Your task to perform on an android device: turn smart compose on in the gmail app Image 0: 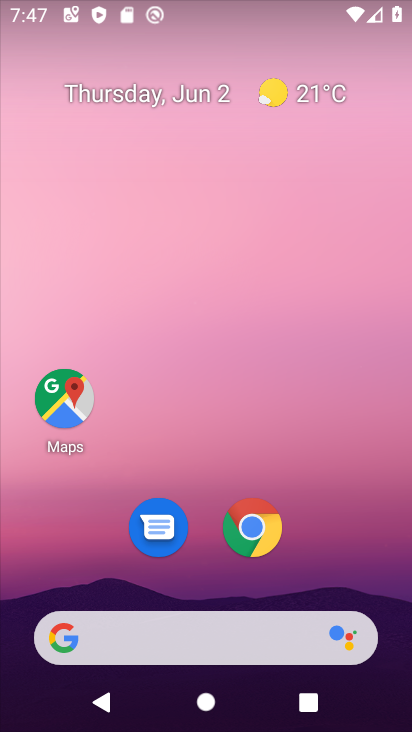
Step 0: drag from (345, 600) to (327, 105)
Your task to perform on an android device: turn smart compose on in the gmail app Image 1: 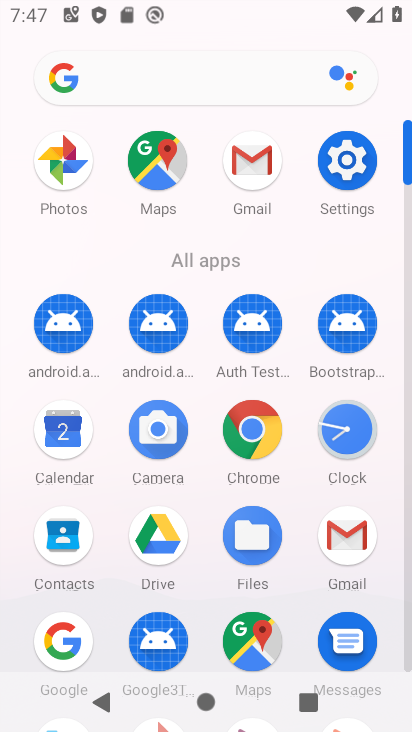
Step 1: click (250, 162)
Your task to perform on an android device: turn smart compose on in the gmail app Image 2: 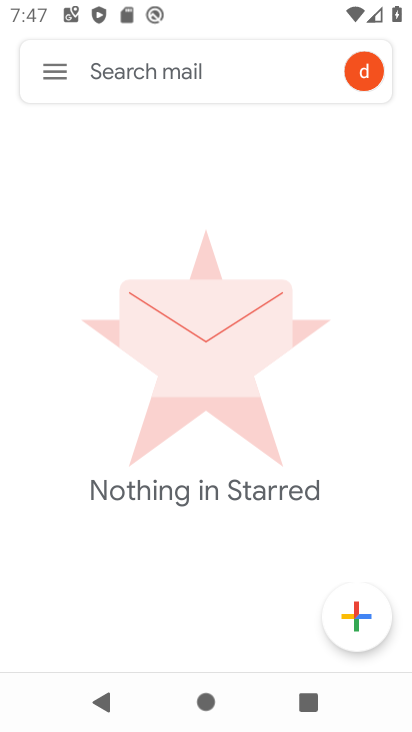
Step 2: click (42, 94)
Your task to perform on an android device: turn smart compose on in the gmail app Image 3: 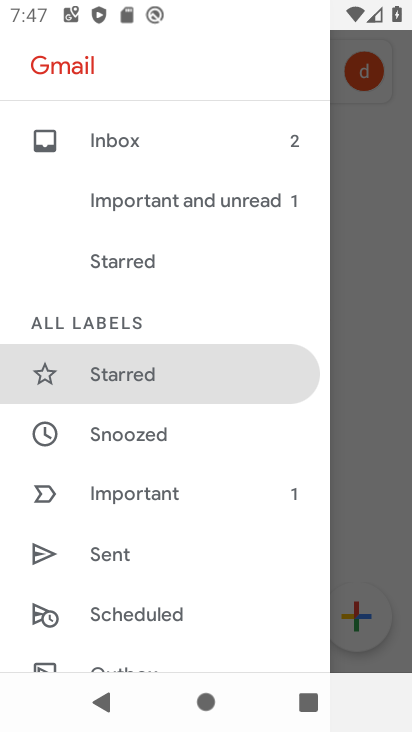
Step 3: drag from (198, 667) to (190, 292)
Your task to perform on an android device: turn smart compose on in the gmail app Image 4: 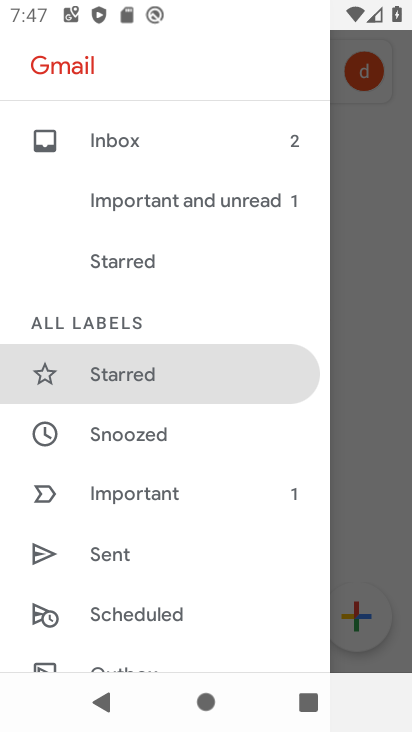
Step 4: drag from (200, 623) to (180, 364)
Your task to perform on an android device: turn smart compose on in the gmail app Image 5: 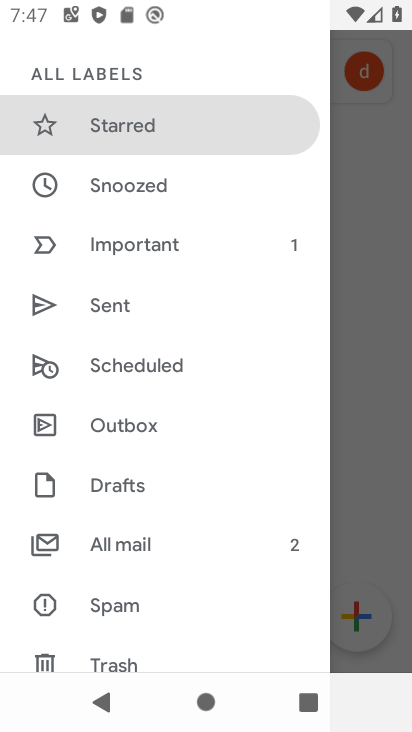
Step 5: drag from (149, 654) to (117, 439)
Your task to perform on an android device: turn smart compose on in the gmail app Image 6: 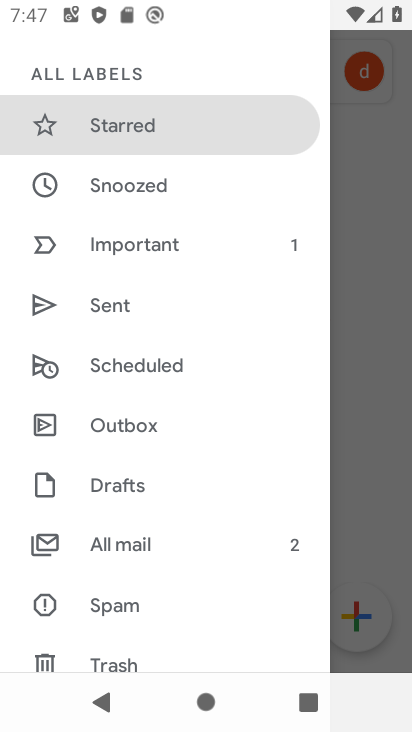
Step 6: drag from (121, 609) to (139, 383)
Your task to perform on an android device: turn smart compose on in the gmail app Image 7: 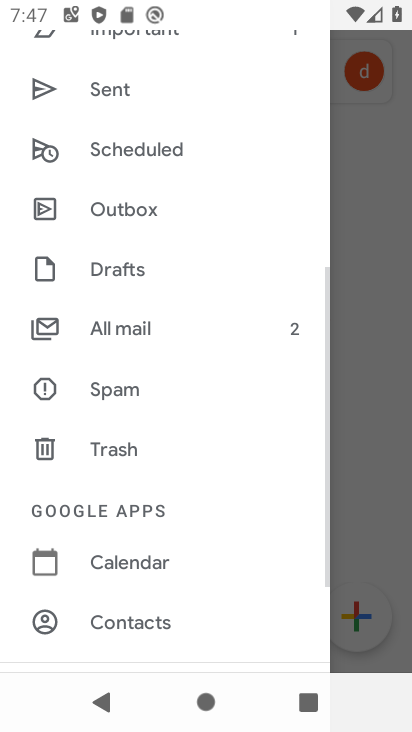
Step 7: drag from (79, 690) to (74, 487)
Your task to perform on an android device: turn smart compose on in the gmail app Image 8: 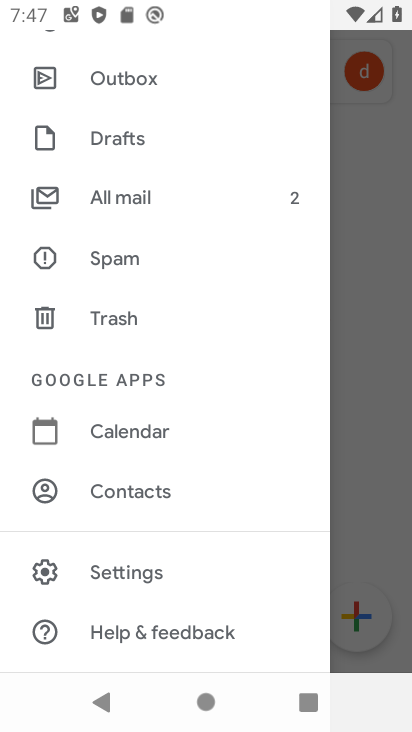
Step 8: click (201, 570)
Your task to perform on an android device: turn smart compose on in the gmail app Image 9: 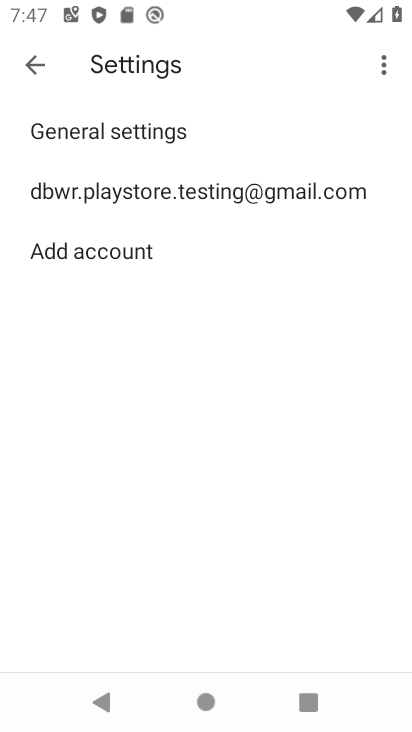
Step 9: click (270, 202)
Your task to perform on an android device: turn smart compose on in the gmail app Image 10: 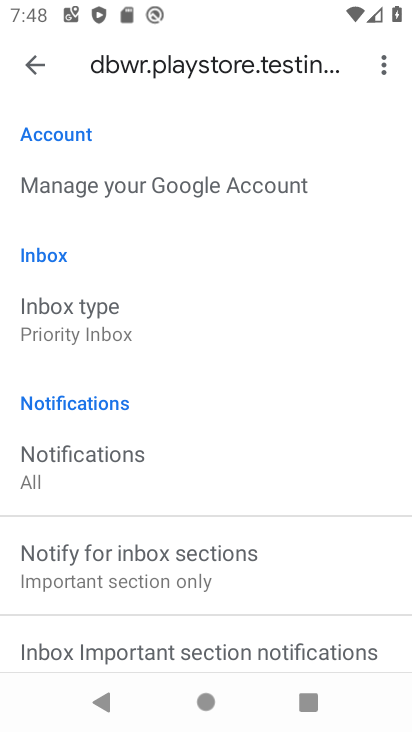
Step 10: task complete